Your task to perform on an android device: Open settings Image 0: 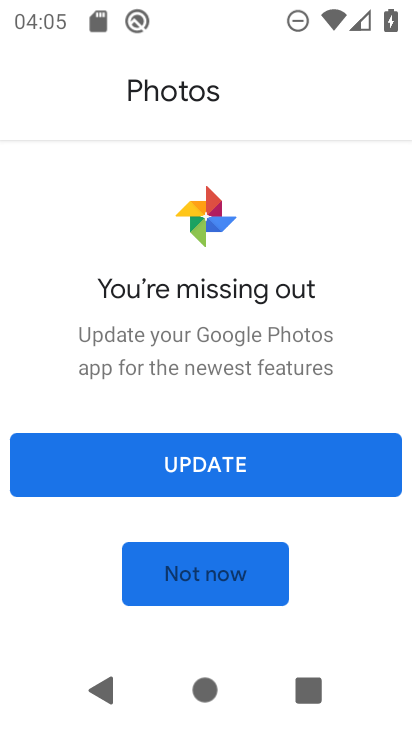
Step 0: press home button
Your task to perform on an android device: Open settings Image 1: 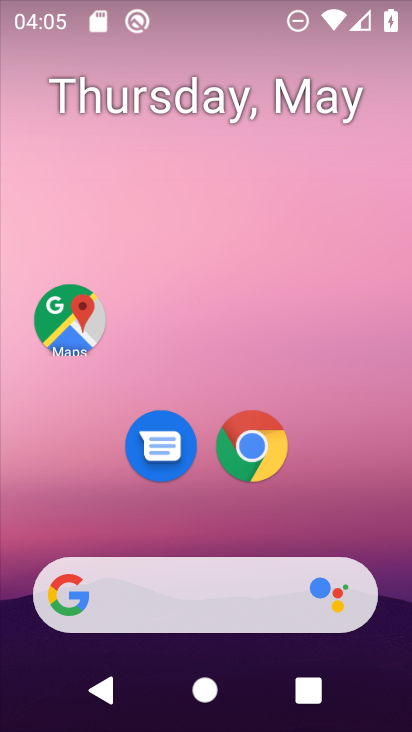
Step 1: drag from (339, 538) to (259, 4)
Your task to perform on an android device: Open settings Image 2: 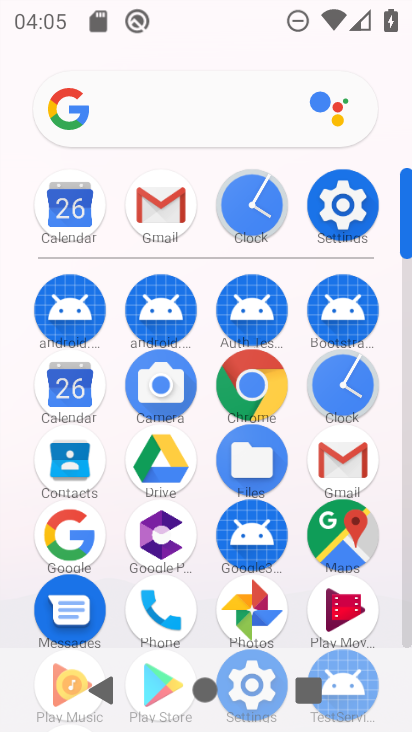
Step 2: click (353, 212)
Your task to perform on an android device: Open settings Image 3: 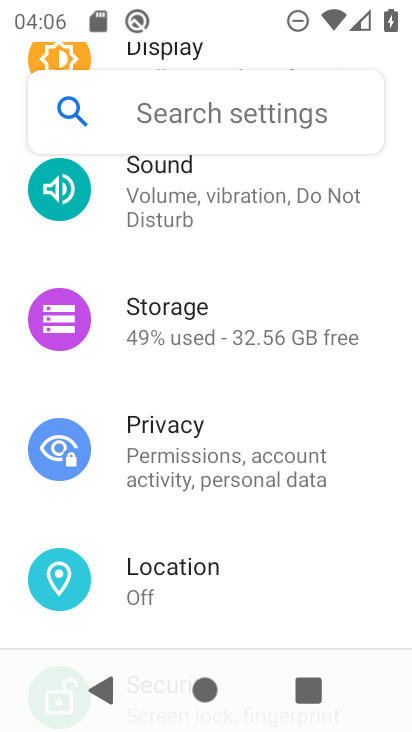
Step 3: task complete